Your task to perform on an android device: Open wifi settings Image 0: 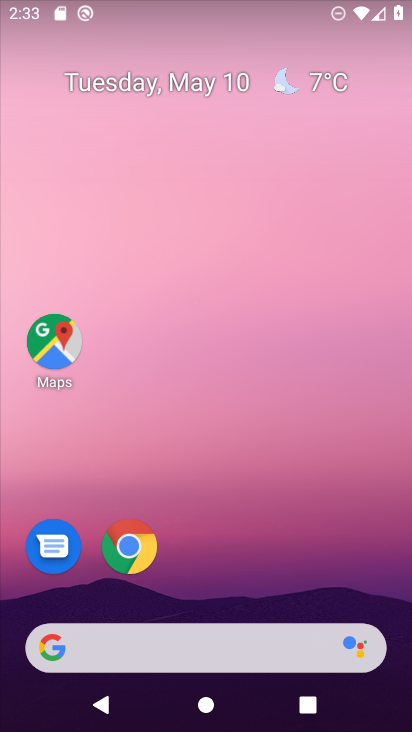
Step 0: drag from (314, 496) to (308, 64)
Your task to perform on an android device: Open wifi settings Image 1: 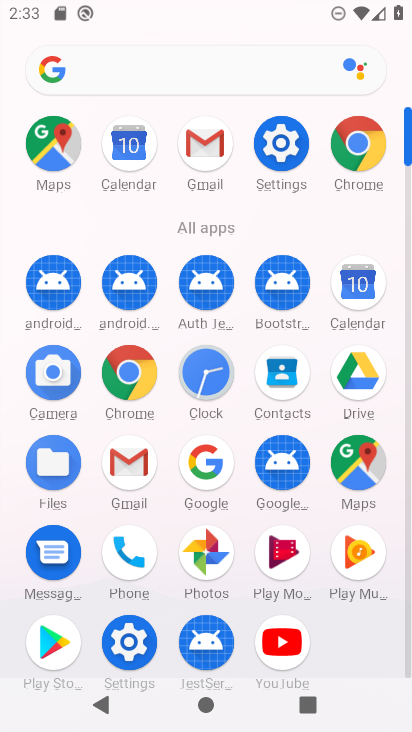
Step 1: click (295, 140)
Your task to perform on an android device: Open wifi settings Image 2: 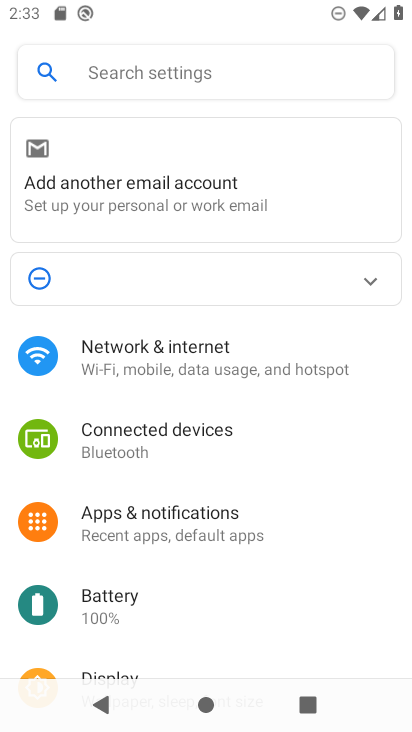
Step 2: click (236, 370)
Your task to perform on an android device: Open wifi settings Image 3: 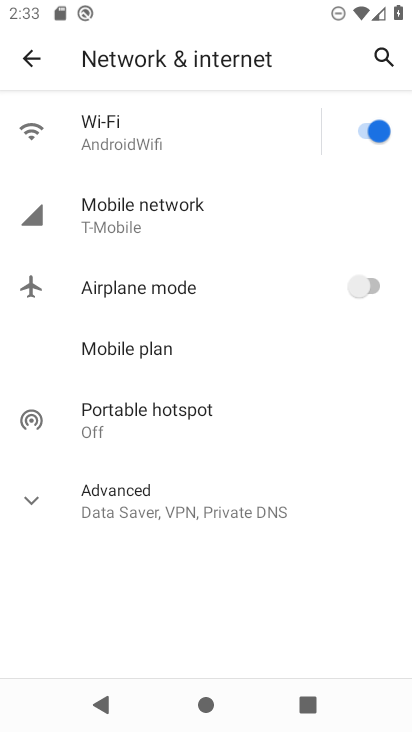
Step 3: click (97, 144)
Your task to perform on an android device: Open wifi settings Image 4: 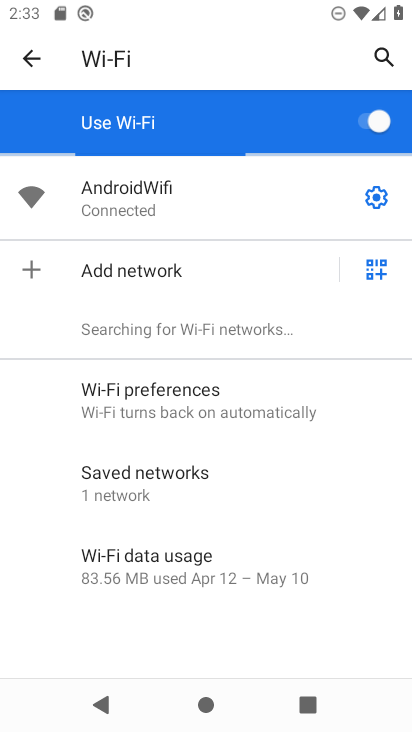
Step 4: task complete